Your task to perform on an android device: turn smart compose on in the gmail app Image 0: 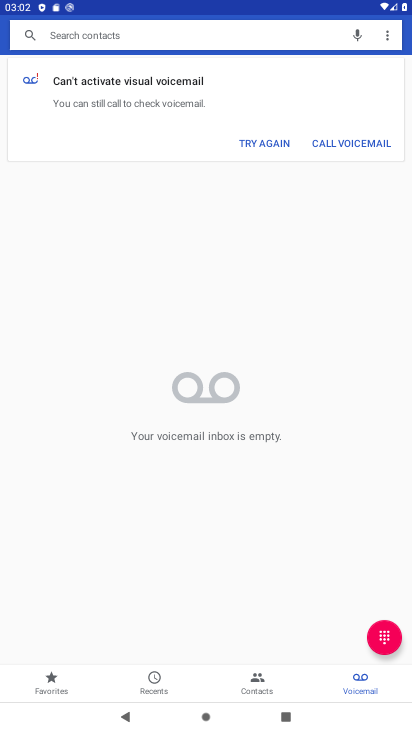
Step 0: press home button
Your task to perform on an android device: turn smart compose on in the gmail app Image 1: 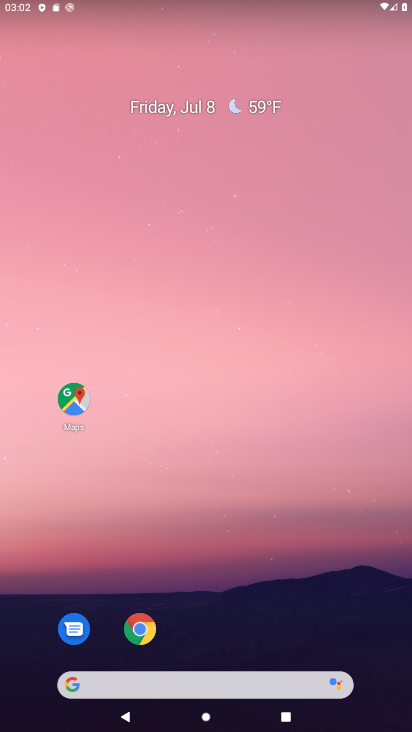
Step 1: drag from (207, 663) to (187, 66)
Your task to perform on an android device: turn smart compose on in the gmail app Image 2: 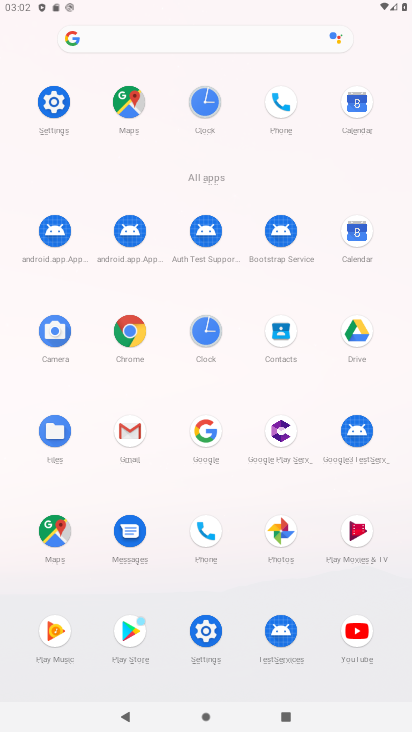
Step 2: click (128, 432)
Your task to perform on an android device: turn smart compose on in the gmail app Image 3: 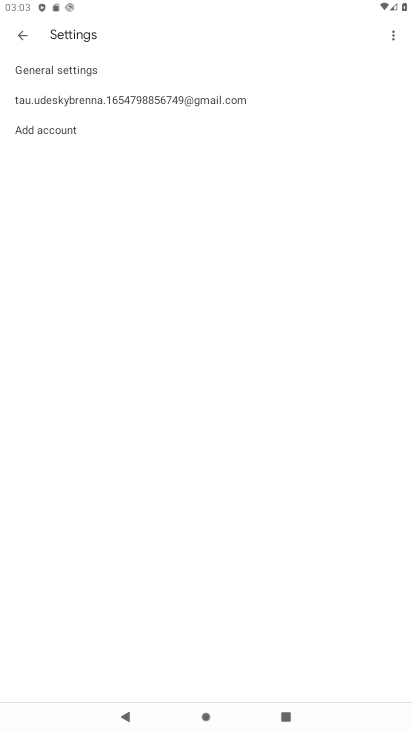
Step 3: click (130, 98)
Your task to perform on an android device: turn smart compose on in the gmail app Image 4: 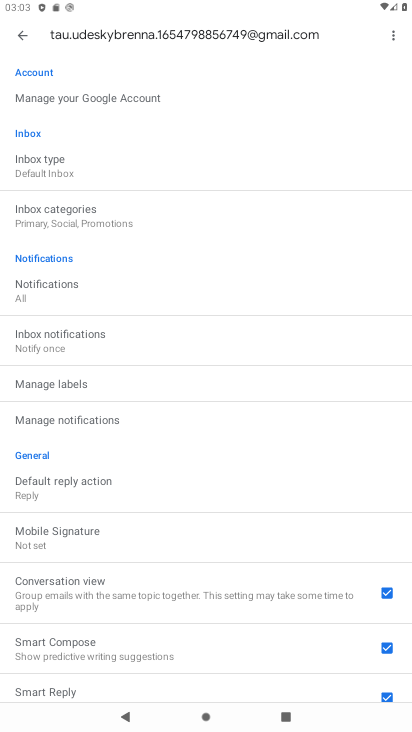
Step 4: task complete